Your task to perform on an android device: Open Reddit.com Image 0: 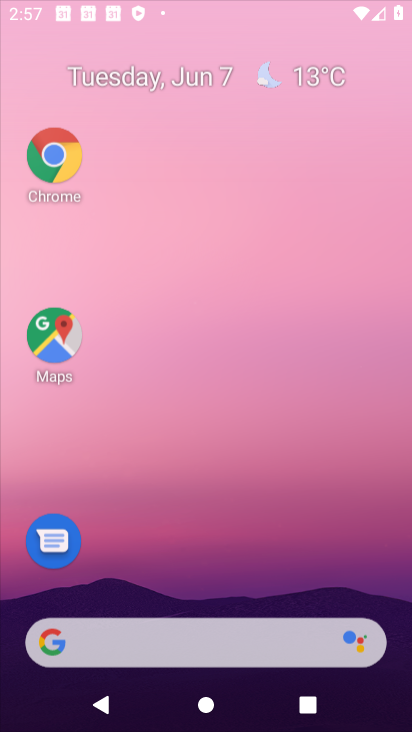
Step 0: click (321, 33)
Your task to perform on an android device: Open Reddit.com Image 1: 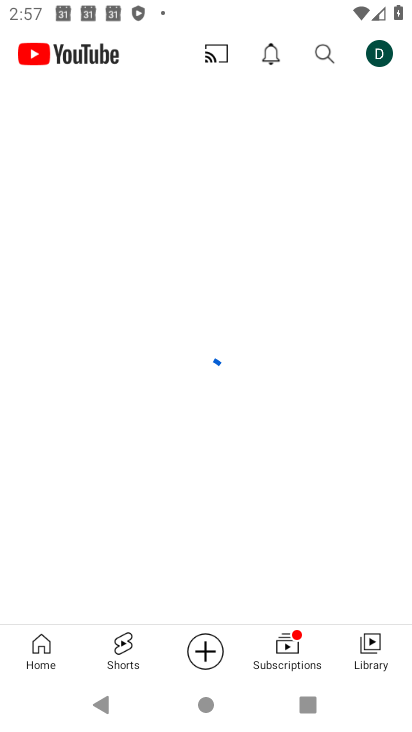
Step 1: drag from (235, 507) to (339, 206)
Your task to perform on an android device: Open Reddit.com Image 2: 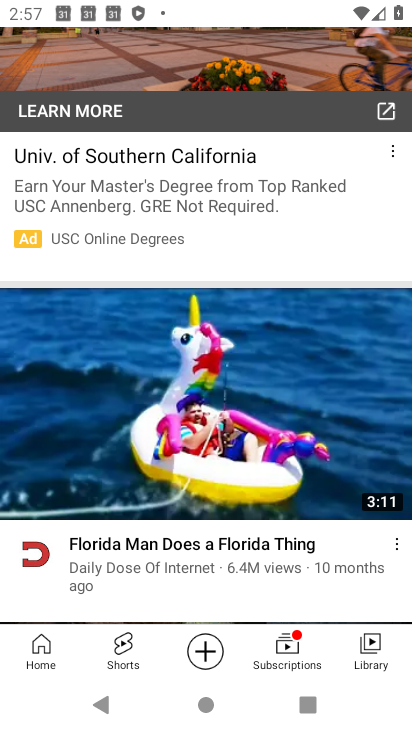
Step 2: press home button
Your task to perform on an android device: Open Reddit.com Image 3: 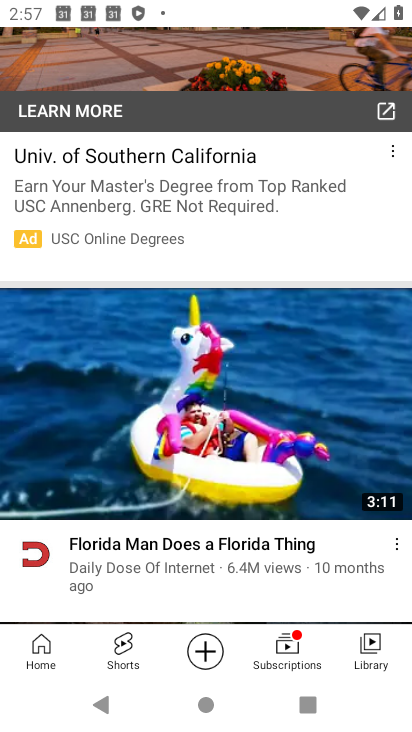
Step 3: press home button
Your task to perform on an android device: Open Reddit.com Image 4: 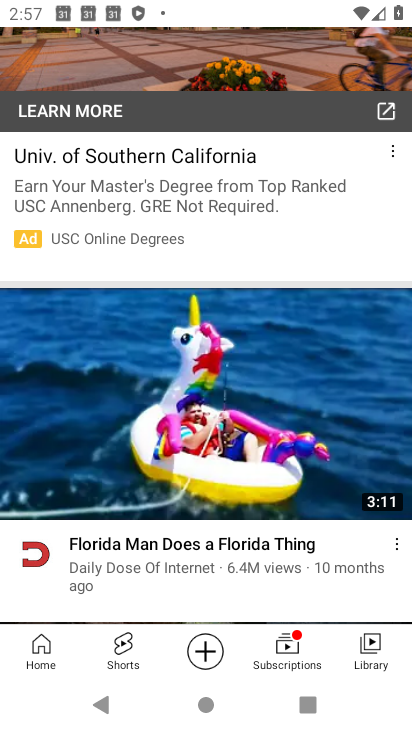
Step 4: click (332, 152)
Your task to perform on an android device: Open Reddit.com Image 5: 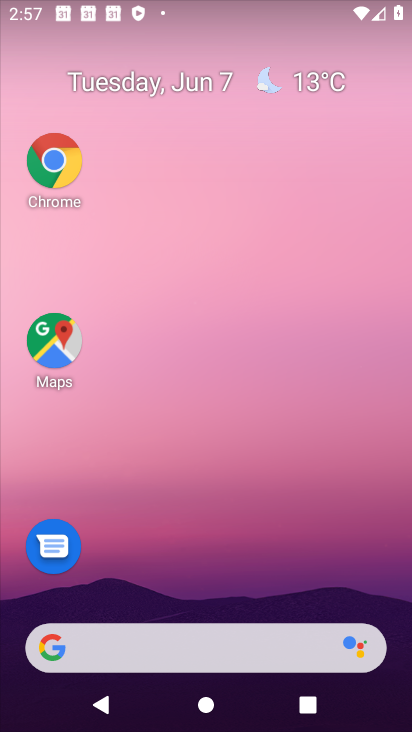
Step 5: drag from (244, 611) to (363, 340)
Your task to perform on an android device: Open Reddit.com Image 6: 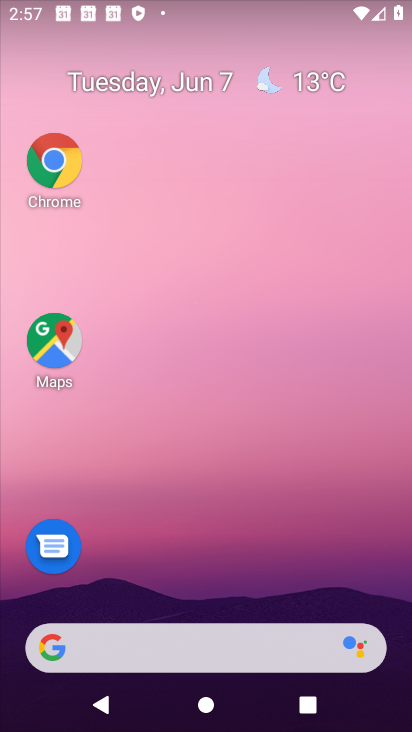
Step 6: drag from (254, 524) to (381, 65)
Your task to perform on an android device: Open Reddit.com Image 7: 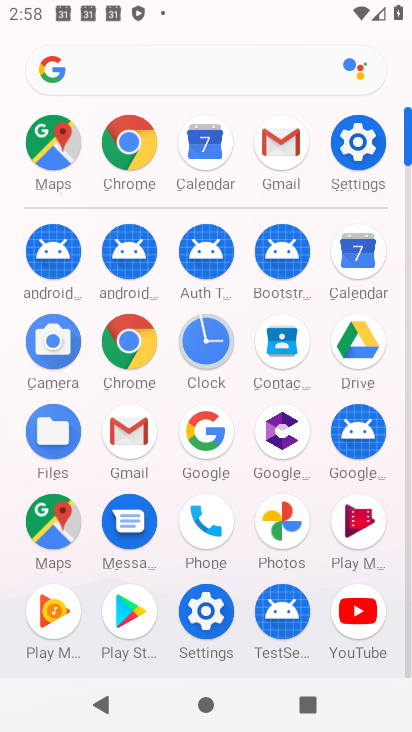
Step 7: click (236, 62)
Your task to perform on an android device: Open Reddit.com Image 8: 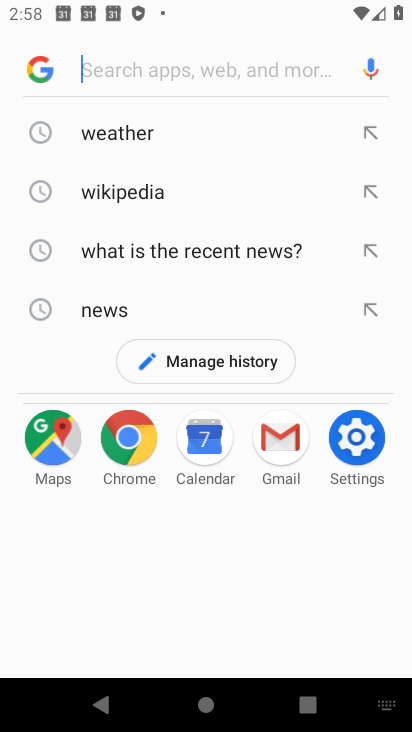
Step 8: type "Reddit.com"
Your task to perform on an android device: Open Reddit.com Image 9: 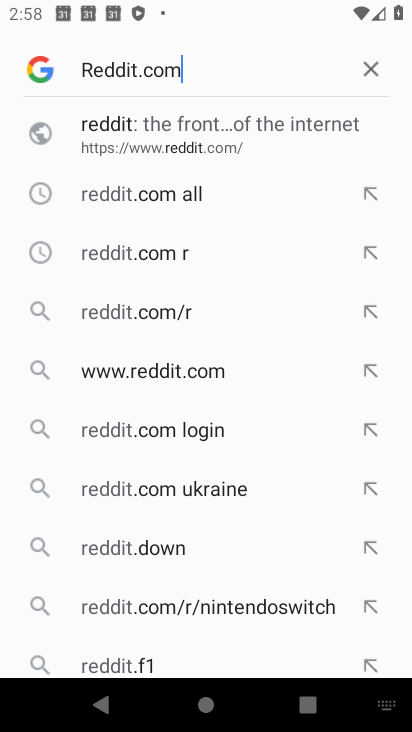
Step 9: type ""
Your task to perform on an android device: Open Reddit.com Image 10: 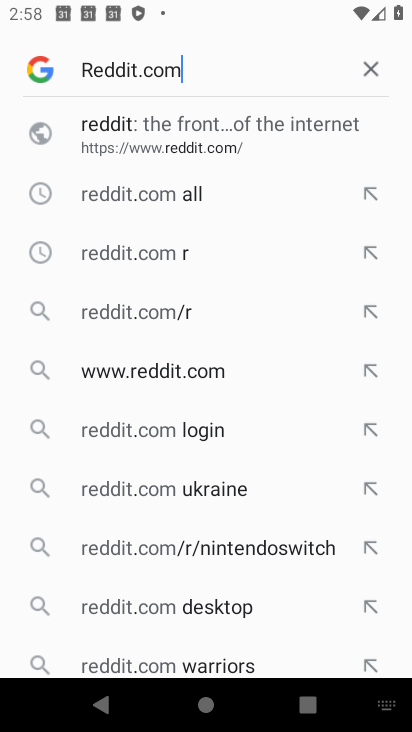
Step 10: click (147, 134)
Your task to perform on an android device: Open Reddit.com Image 11: 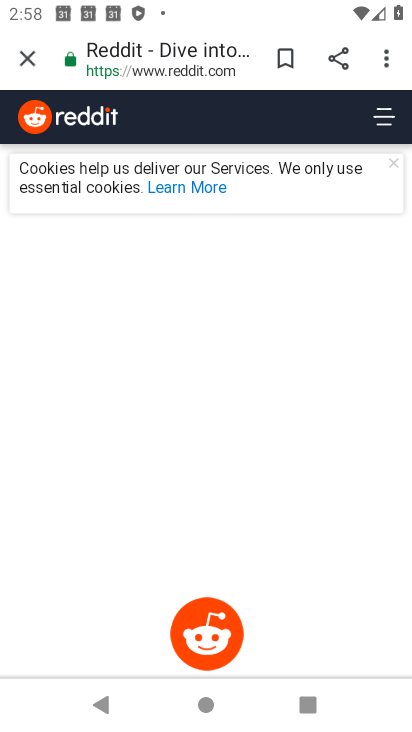
Step 11: task complete